Your task to perform on an android device: Go to Yahoo.com Image 0: 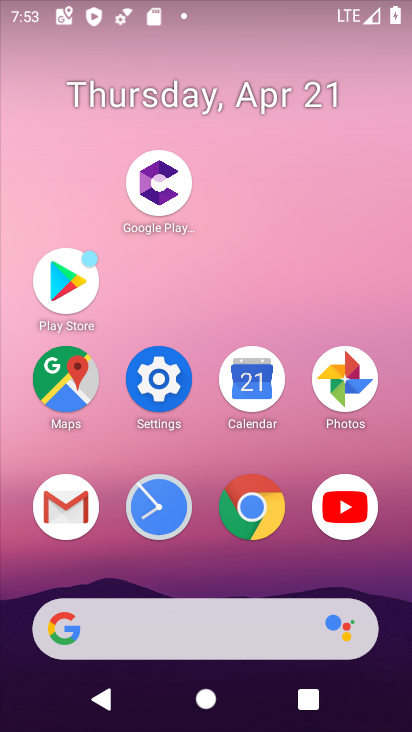
Step 0: click (253, 510)
Your task to perform on an android device: Go to Yahoo.com Image 1: 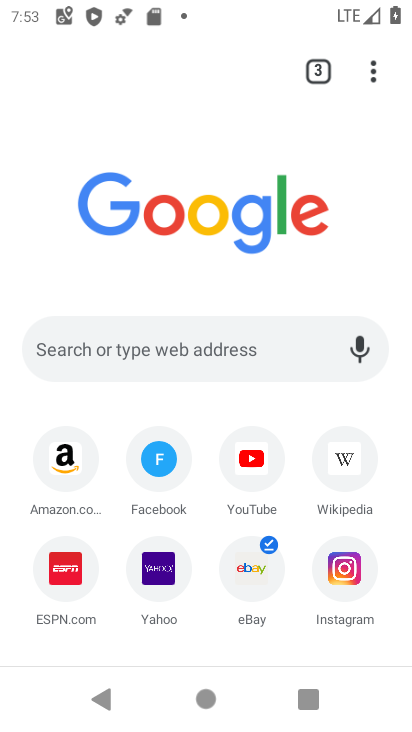
Step 1: click (160, 561)
Your task to perform on an android device: Go to Yahoo.com Image 2: 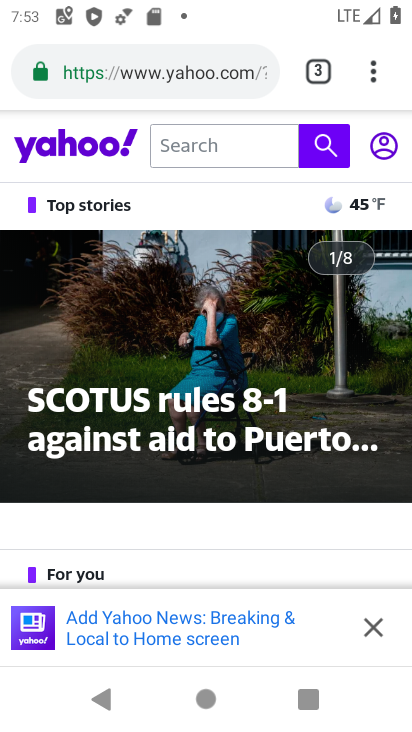
Step 2: task complete